Your task to perform on an android device: How much does a 3 bedroom apartment rent for in Philadelphia? Image 0: 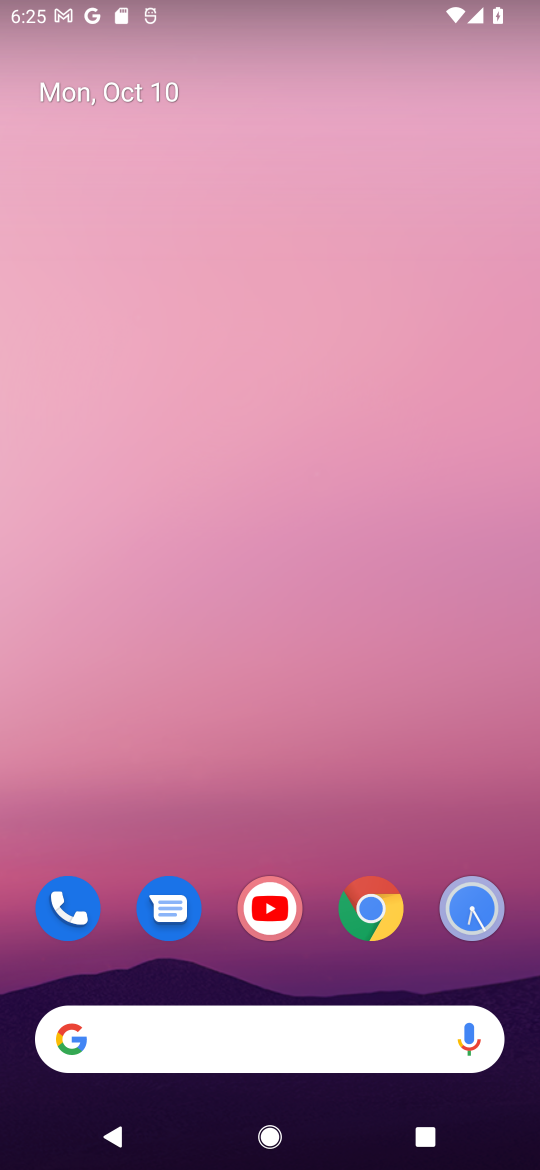
Step 0: drag from (320, 970) to (387, 72)
Your task to perform on an android device: How much does a 3 bedroom apartment rent for in Philadelphia? Image 1: 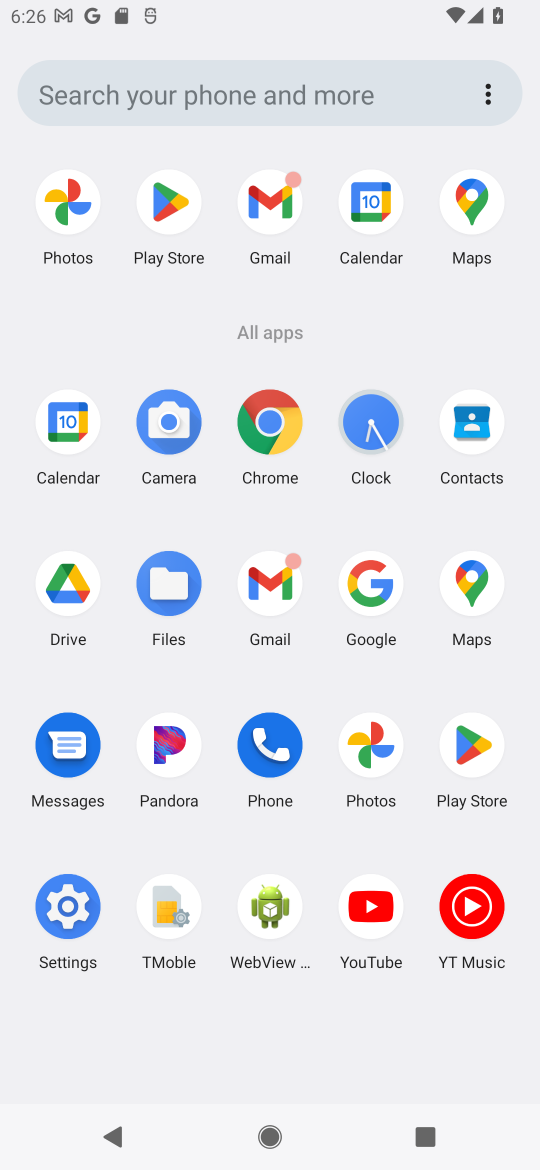
Step 1: click (280, 415)
Your task to perform on an android device: How much does a 3 bedroom apartment rent for in Philadelphia? Image 2: 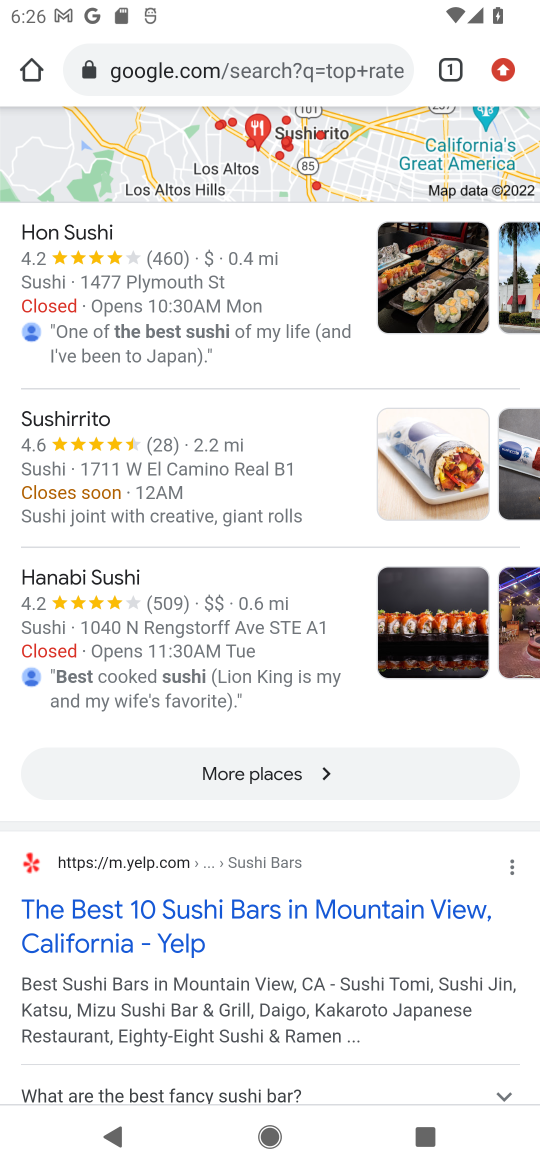
Step 2: click (243, 73)
Your task to perform on an android device: How much does a 3 bedroom apartment rent for in Philadelphia? Image 3: 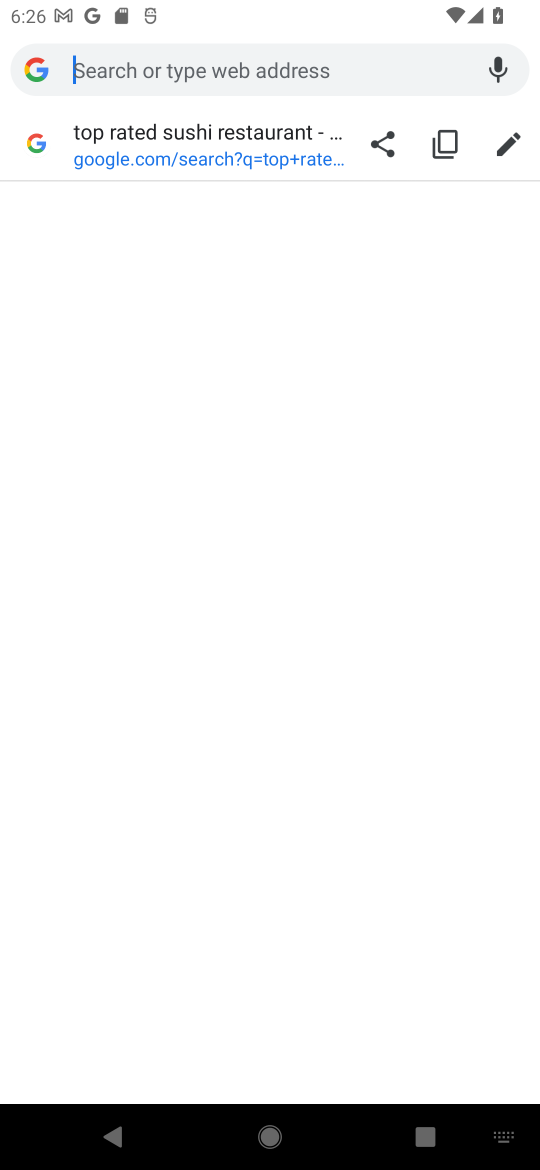
Step 3: type "How much does a 3 bedroom apartment rest for in Philadelphia"
Your task to perform on an android device: How much does a 3 bedroom apartment rent for in Philadelphia? Image 4: 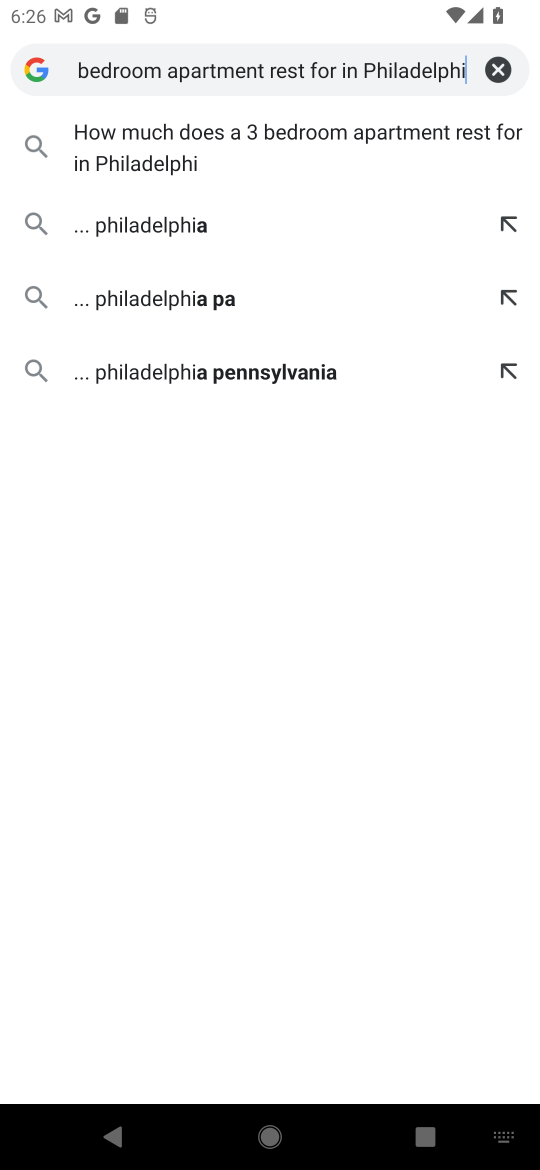
Step 4: type "a?"
Your task to perform on an android device: How much does a 3 bedroom apartment rent for in Philadelphia? Image 5: 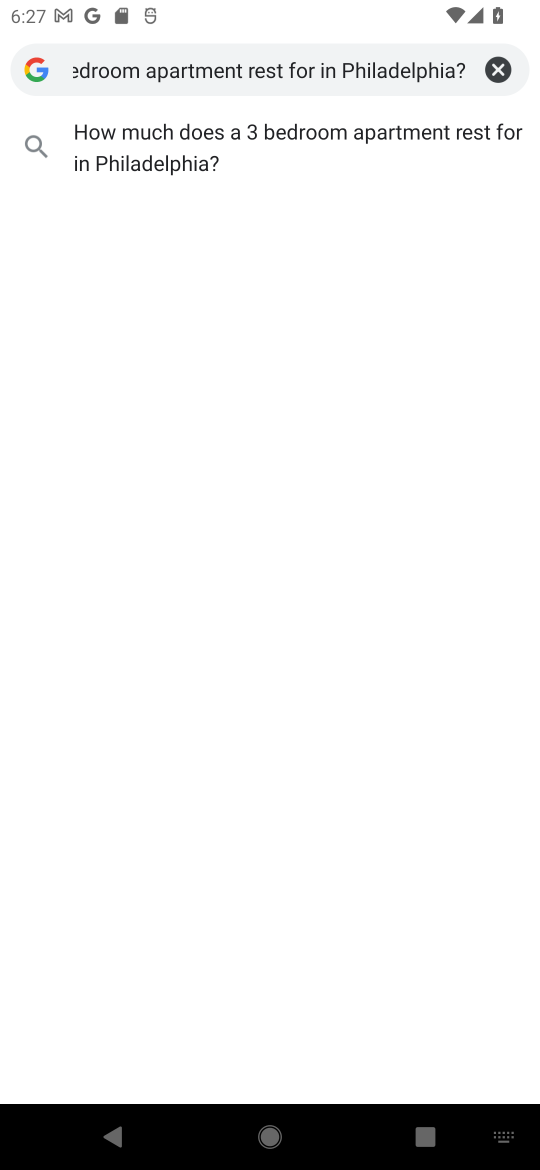
Step 5: press enter
Your task to perform on an android device: How much does a 3 bedroom apartment rent for in Philadelphia? Image 6: 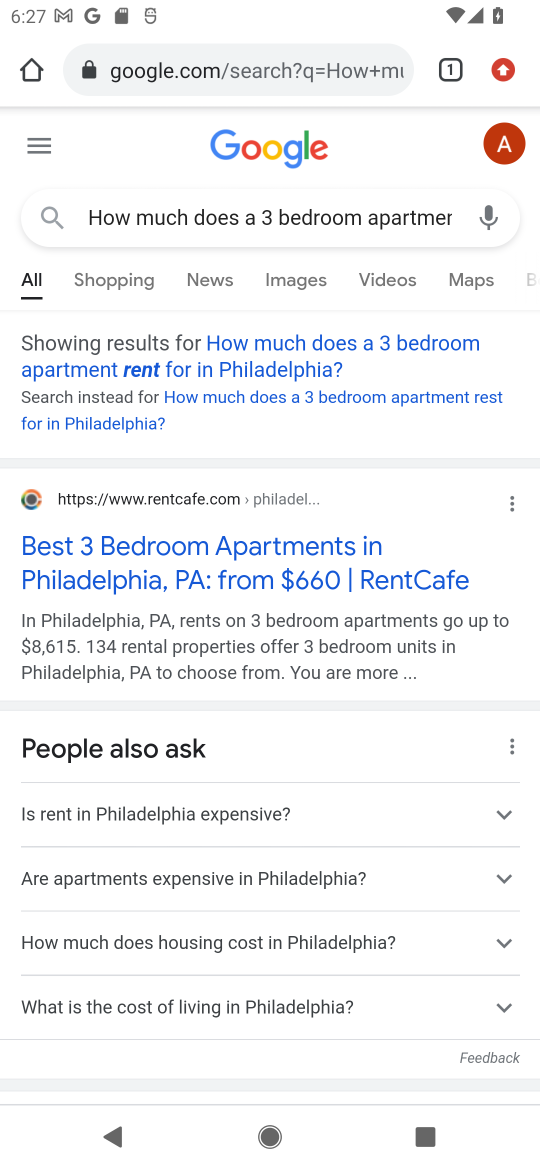
Step 6: drag from (331, 781) to (223, 737)
Your task to perform on an android device: How much does a 3 bedroom apartment rent for in Philadelphia? Image 7: 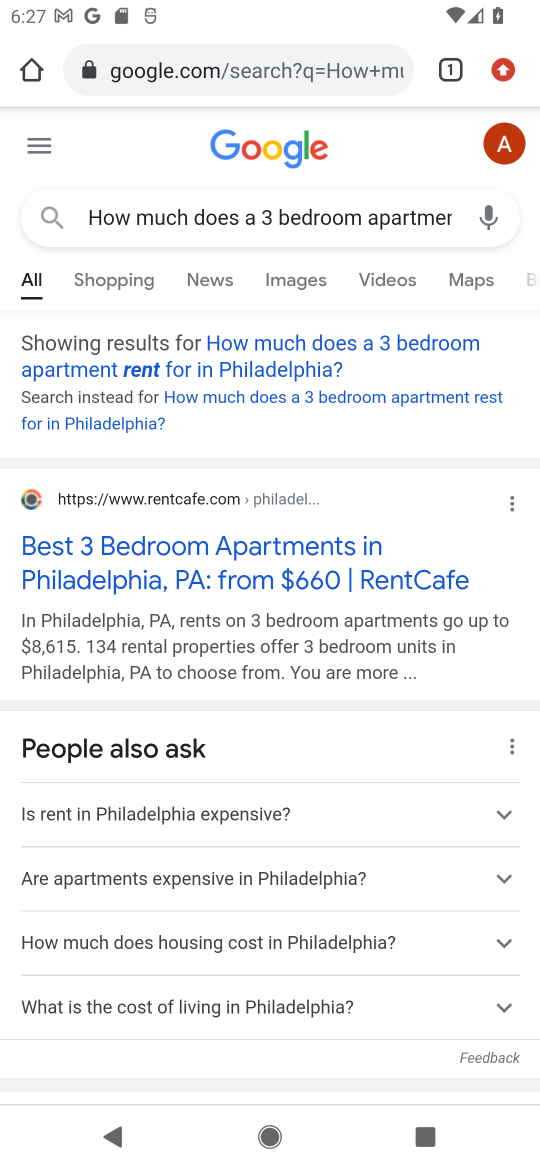
Step 7: drag from (220, 384) to (162, 795)
Your task to perform on an android device: How much does a 3 bedroom apartment rent for in Philadelphia? Image 8: 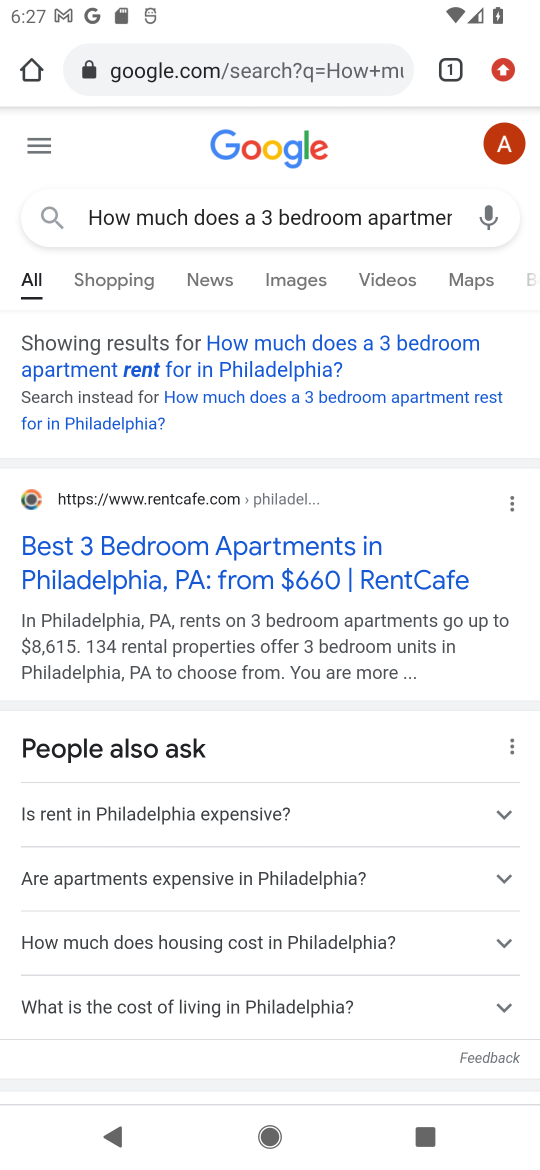
Step 8: drag from (195, 527) to (283, 916)
Your task to perform on an android device: How much does a 3 bedroom apartment rent for in Philadelphia? Image 9: 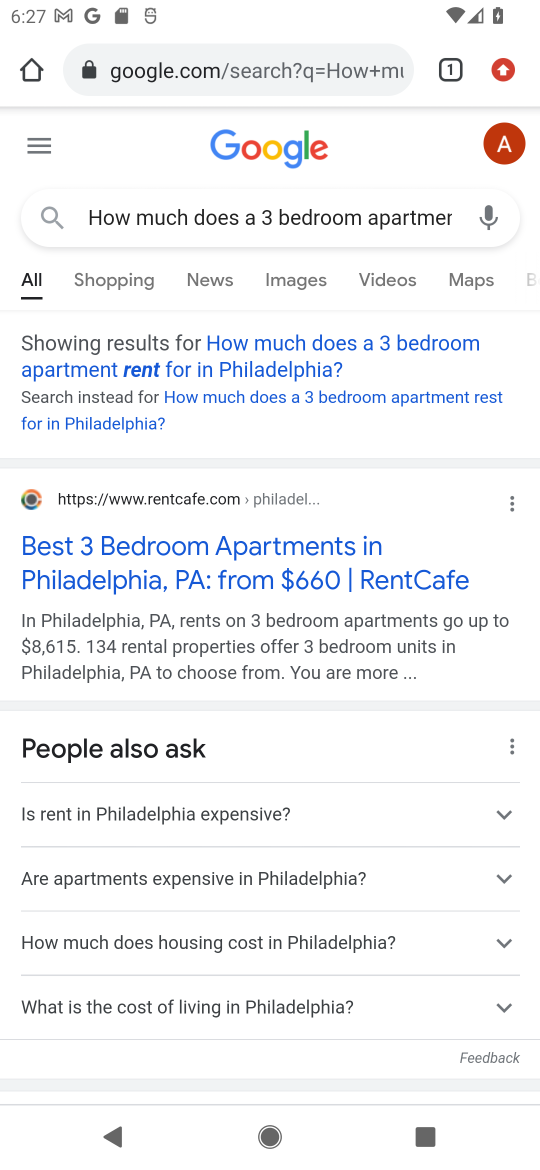
Step 9: click (213, 571)
Your task to perform on an android device: How much does a 3 bedroom apartment rent for in Philadelphia? Image 10: 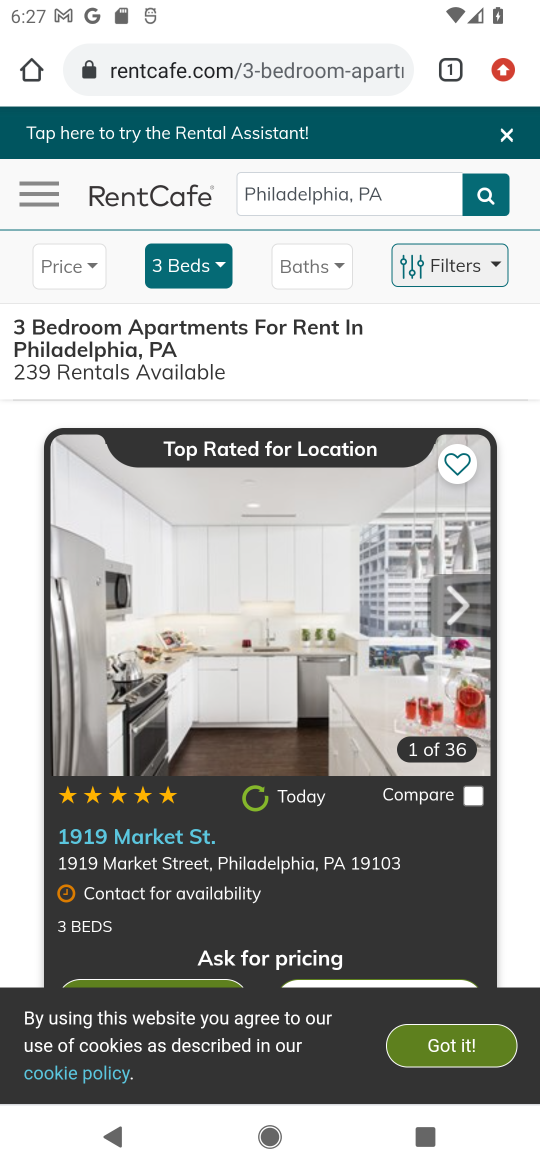
Step 10: task complete